Your task to perform on an android device: toggle show notifications on the lock screen Image 0: 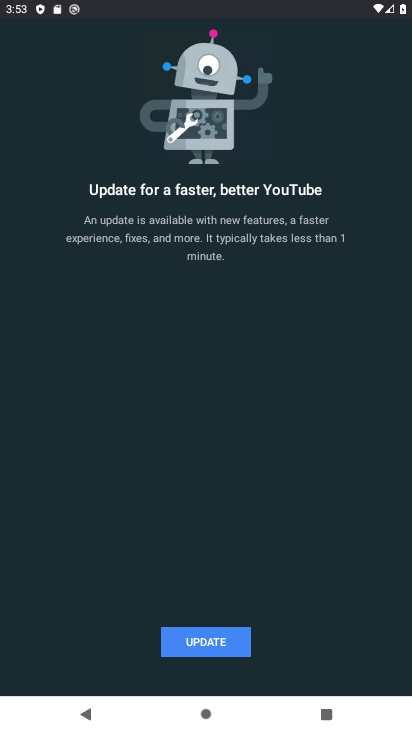
Step 0: press home button
Your task to perform on an android device: toggle show notifications on the lock screen Image 1: 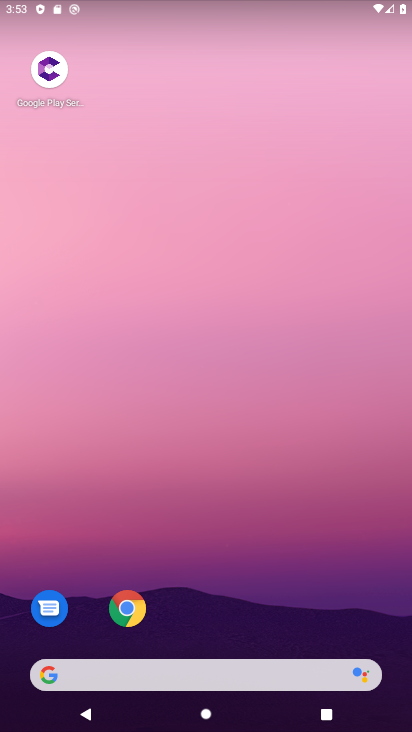
Step 1: drag from (291, 656) to (283, 184)
Your task to perform on an android device: toggle show notifications on the lock screen Image 2: 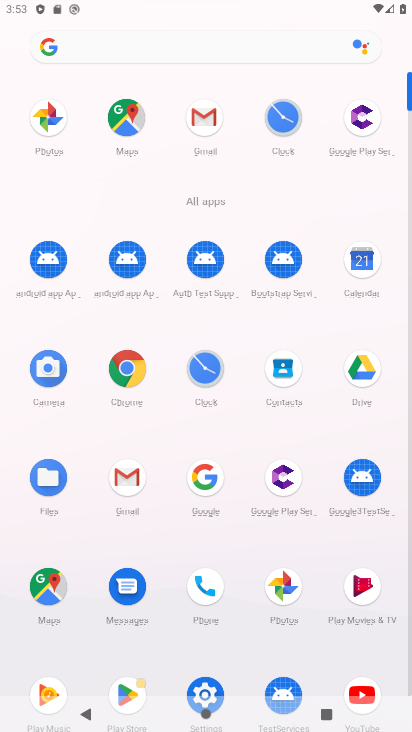
Step 2: click (210, 688)
Your task to perform on an android device: toggle show notifications on the lock screen Image 3: 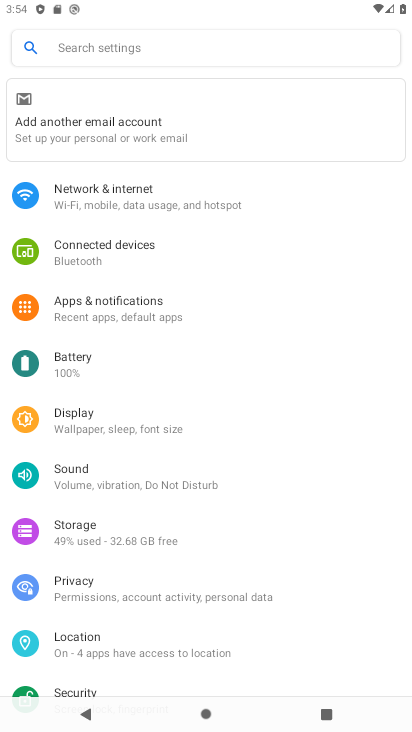
Step 3: click (78, 580)
Your task to perform on an android device: toggle show notifications on the lock screen Image 4: 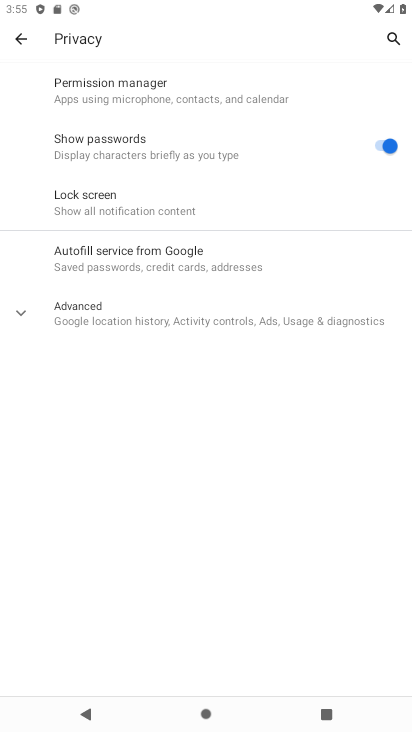
Step 4: click (87, 202)
Your task to perform on an android device: toggle show notifications on the lock screen Image 5: 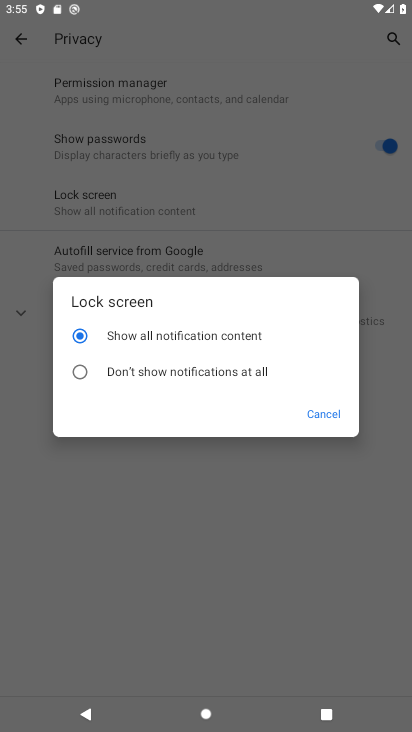
Step 5: click (133, 368)
Your task to perform on an android device: toggle show notifications on the lock screen Image 6: 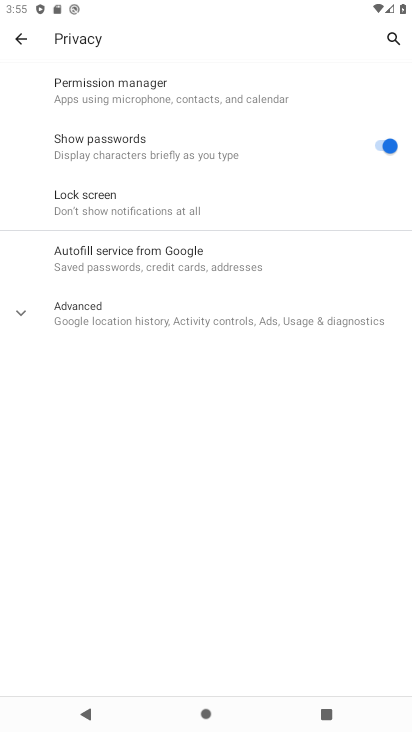
Step 6: task complete